Your task to perform on an android device: open chrome and create a bookmark for the current page Image 0: 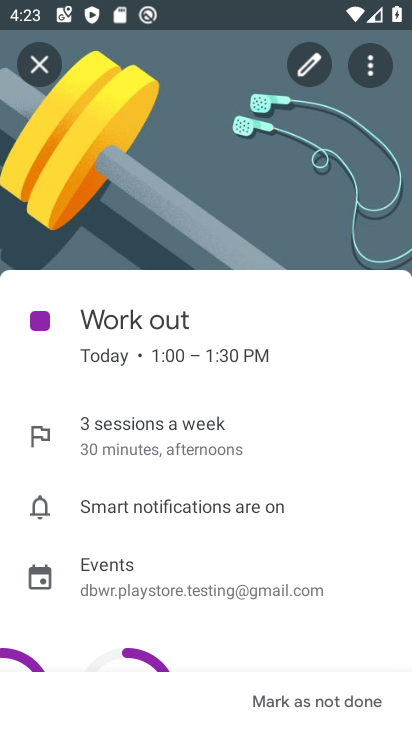
Step 0: press home button
Your task to perform on an android device: open chrome and create a bookmark for the current page Image 1: 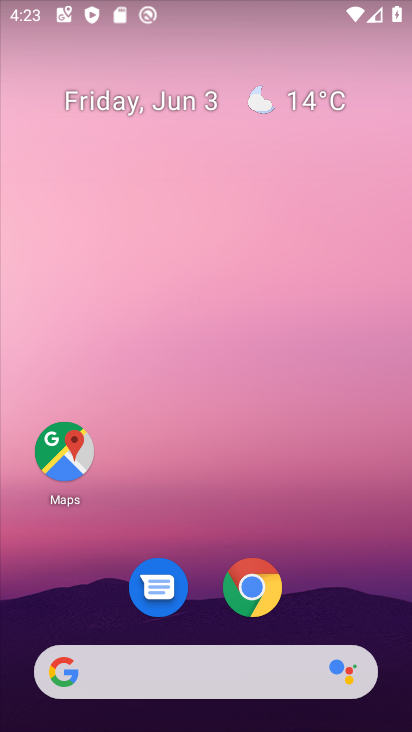
Step 1: click (261, 594)
Your task to perform on an android device: open chrome and create a bookmark for the current page Image 2: 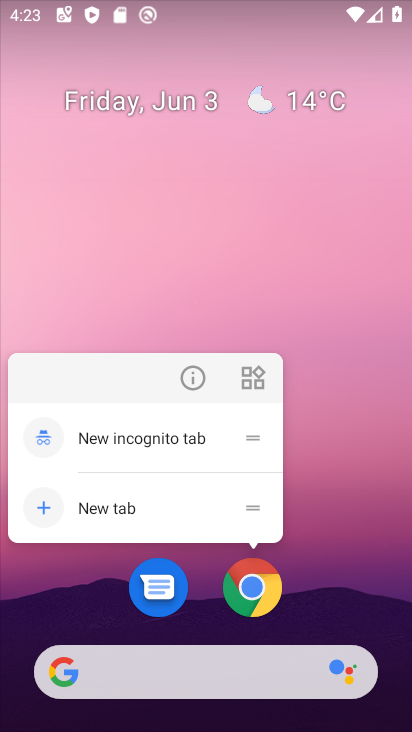
Step 2: click (250, 587)
Your task to perform on an android device: open chrome and create a bookmark for the current page Image 3: 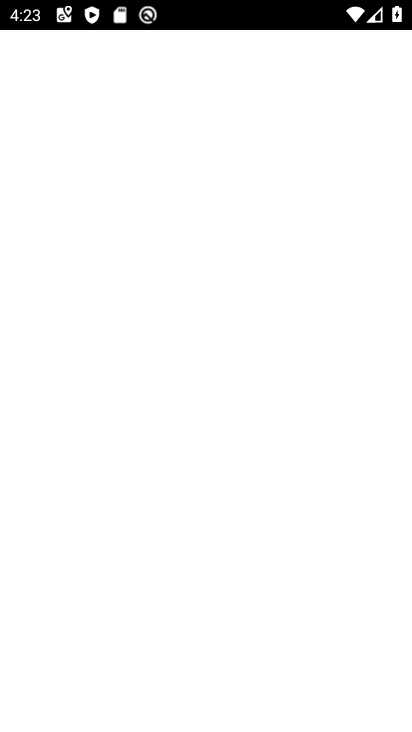
Step 3: click (250, 587)
Your task to perform on an android device: open chrome and create a bookmark for the current page Image 4: 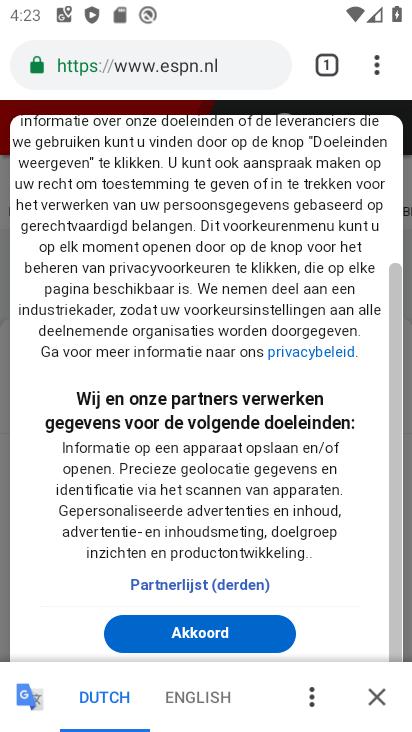
Step 4: click (386, 59)
Your task to perform on an android device: open chrome and create a bookmark for the current page Image 5: 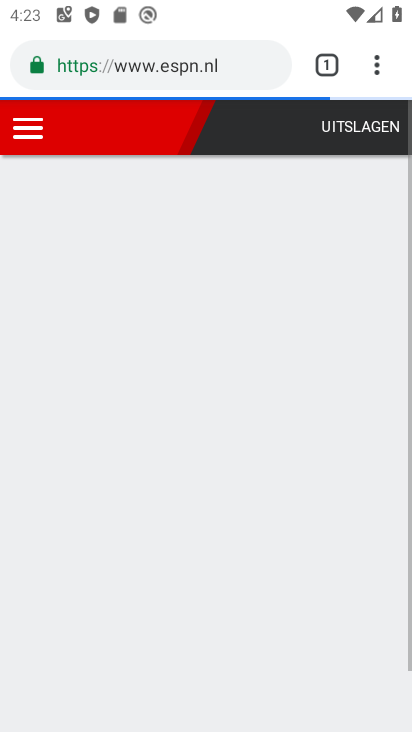
Step 5: click (373, 62)
Your task to perform on an android device: open chrome and create a bookmark for the current page Image 6: 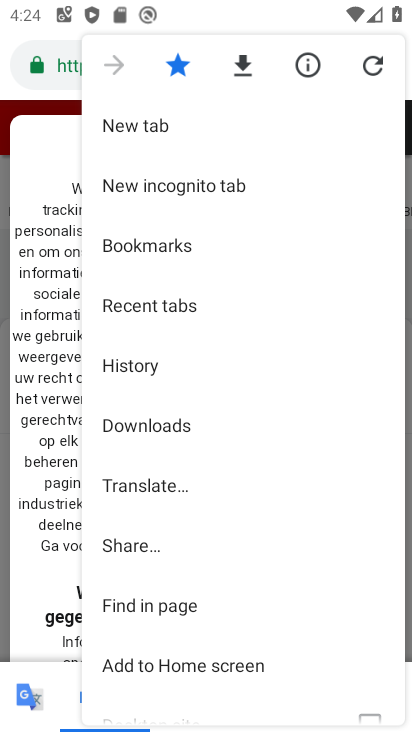
Step 6: click (173, 246)
Your task to perform on an android device: open chrome and create a bookmark for the current page Image 7: 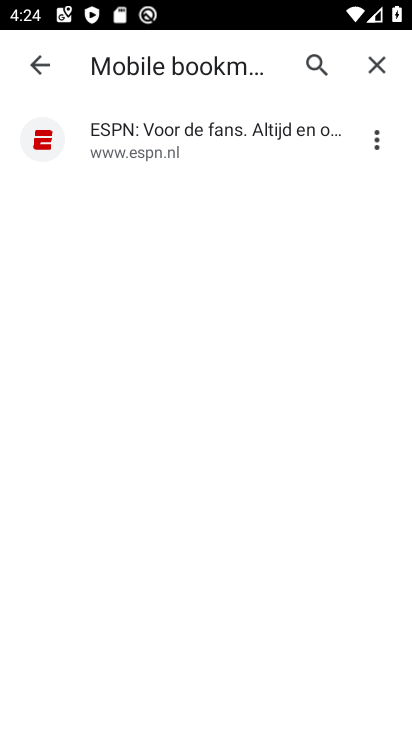
Step 7: click (43, 59)
Your task to perform on an android device: open chrome and create a bookmark for the current page Image 8: 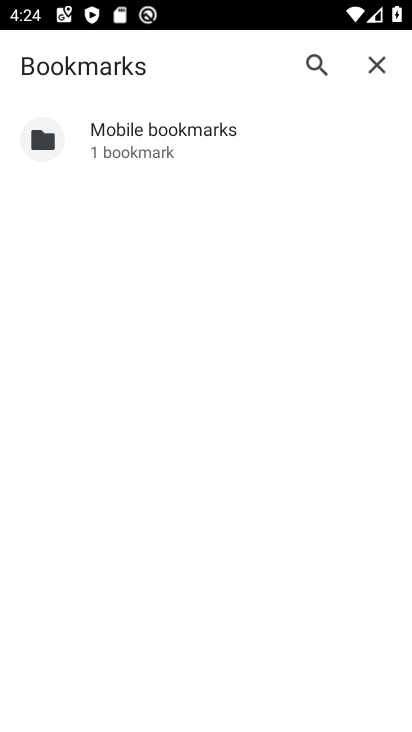
Step 8: click (371, 67)
Your task to perform on an android device: open chrome and create a bookmark for the current page Image 9: 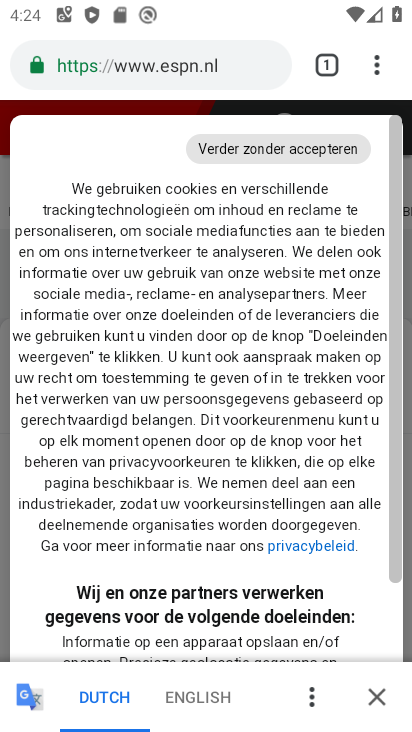
Step 9: click (378, 61)
Your task to perform on an android device: open chrome and create a bookmark for the current page Image 10: 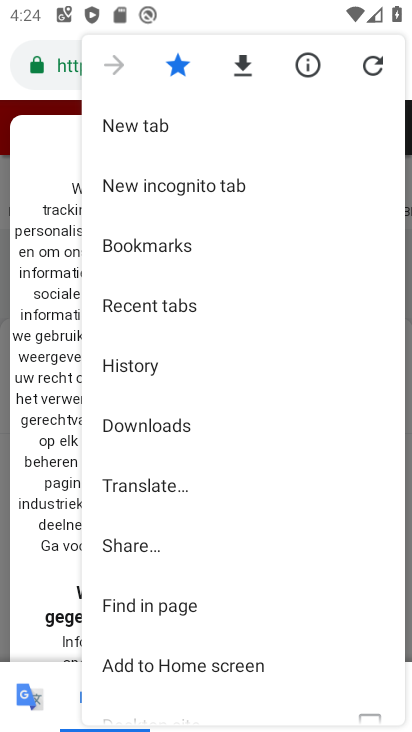
Step 10: task complete